Your task to perform on an android device: find photos in the google photos app Image 0: 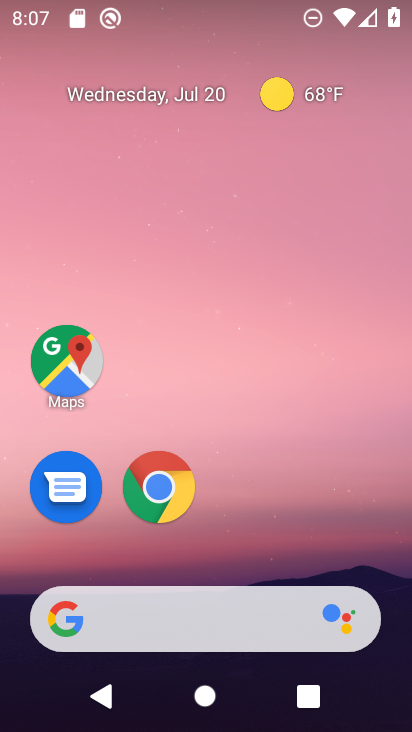
Step 0: drag from (356, 487) to (321, 48)
Your task to perform on an android device: find photos in the google photos app Image 1: 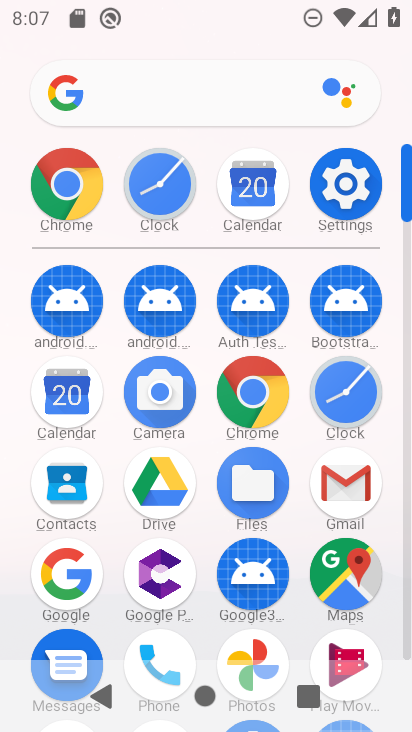
Step 1: drag from (400, 525) to (410, 292)
Your task to perform on an android device: find photos in the google photos app Image 2: 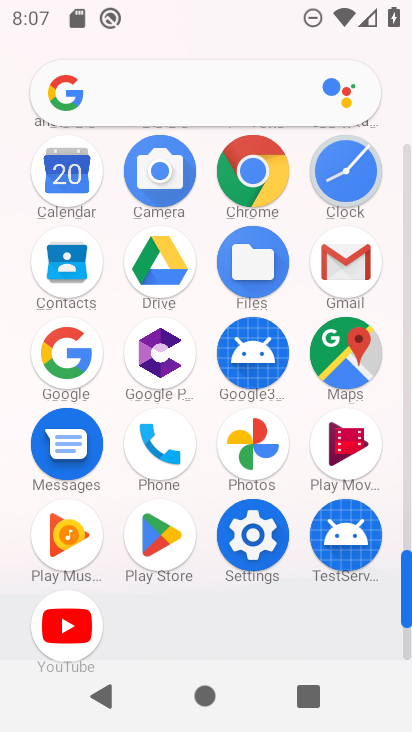
Step 2: click (255, 441)
Your task to perform on an android device: find photos in the google photos app Image 3: 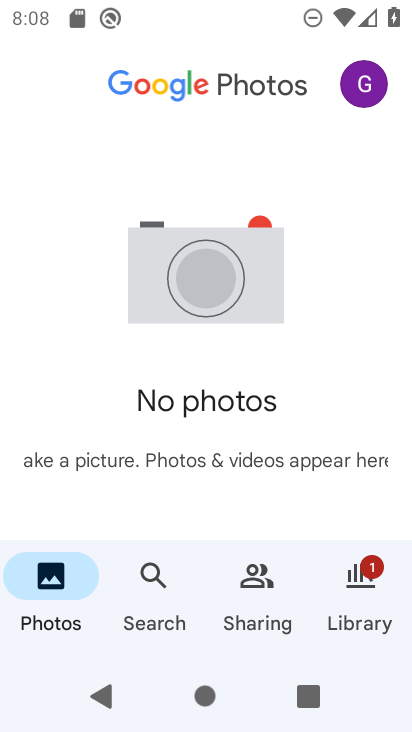
Step 3: task complete